Your task to perform on an android device: turn on wifi Image 0: 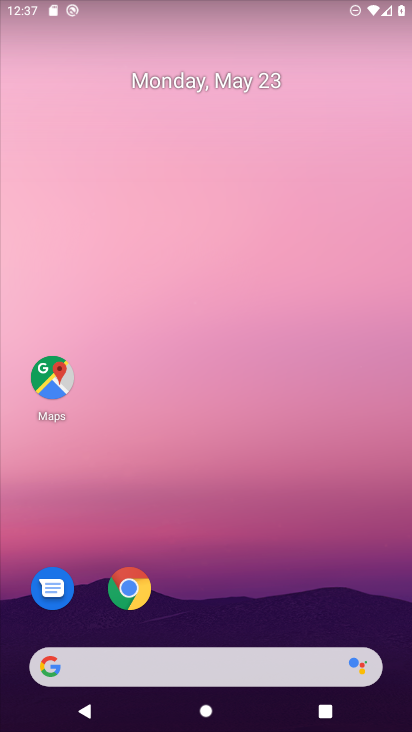
Step 0: drag from (227, 627) to (303, 159)
Your task to perform on an android device: turn on wifi Image 1: 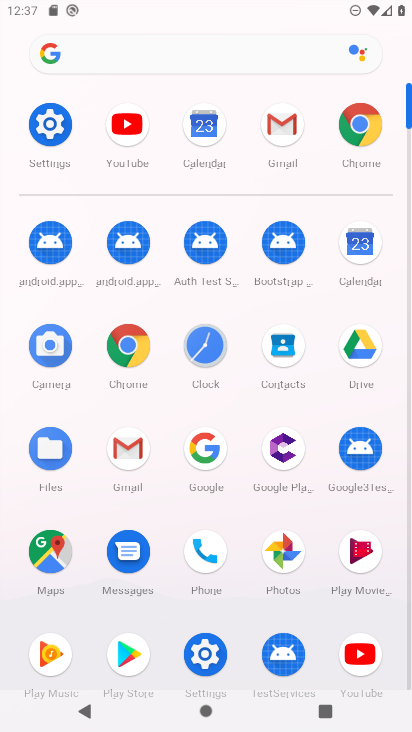
Step 1: click (68, 131)
Your task to perform on an android device: turn on wifi Image 2: 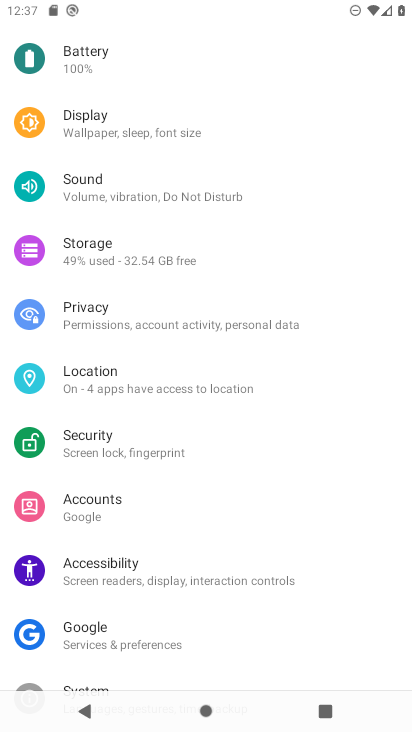
Step 2: drag from (146, 55) to (171, 498)
Your task to perform on an android device: turn on wifi Image 3: 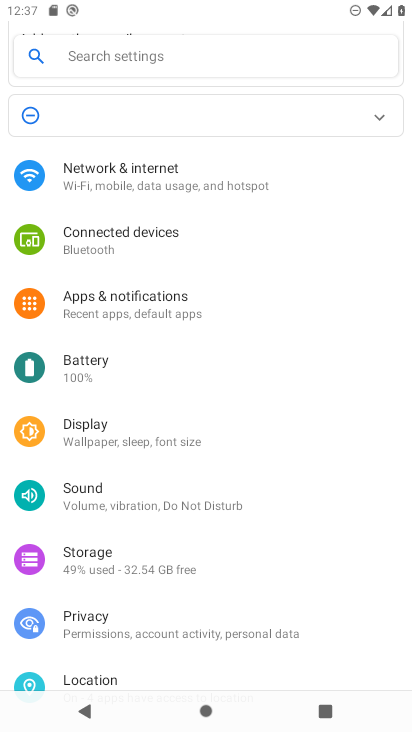
Step 3: click (143, 174)
Your task to perform on an android device: turn on wifi Image 4: 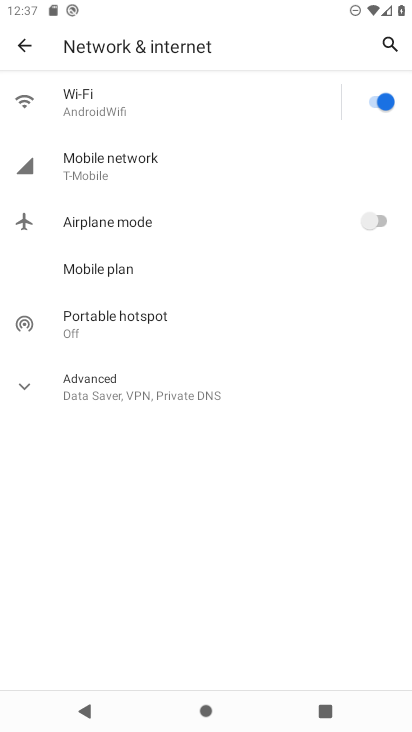
Step 4: task complete